Your task to perform on an android device: Show me popular videos on Youtube Image 0: 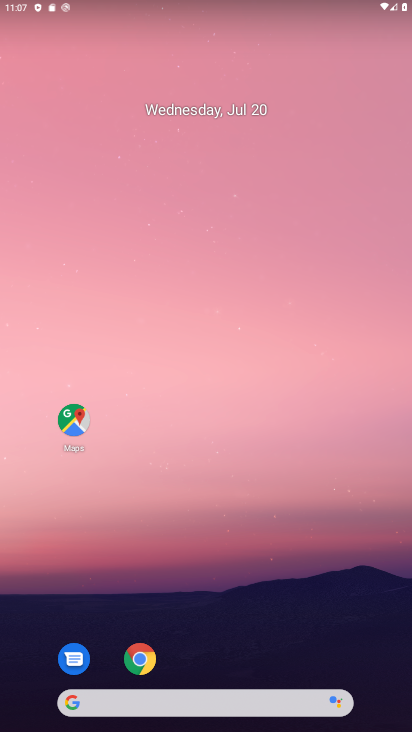
Step 0: drag from (256, 632) to (254, 3)
Your task to perform on an android device: Show me popular videos on Youtube Image 1: 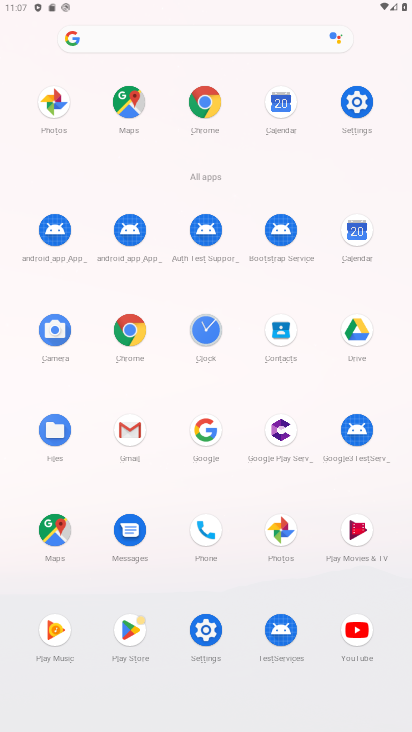
Step 1: click (343, 634)
Your task to perform on an android device: Show me popular videos on Youtube Image 2: 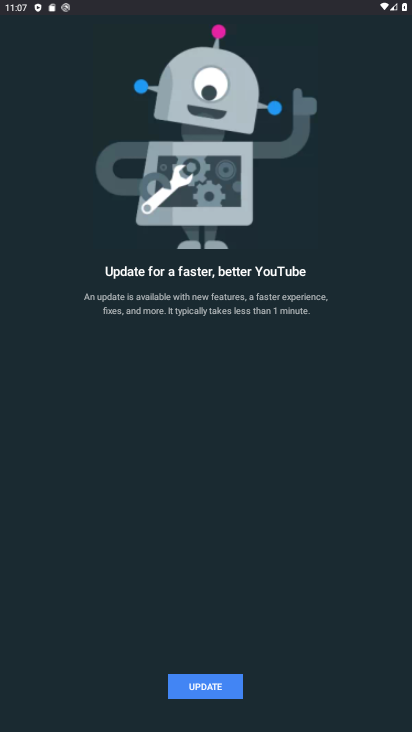
Step 2: click (219, 682)
Your task to perform on an android device: Show me popular videos on Youtube Image 3: 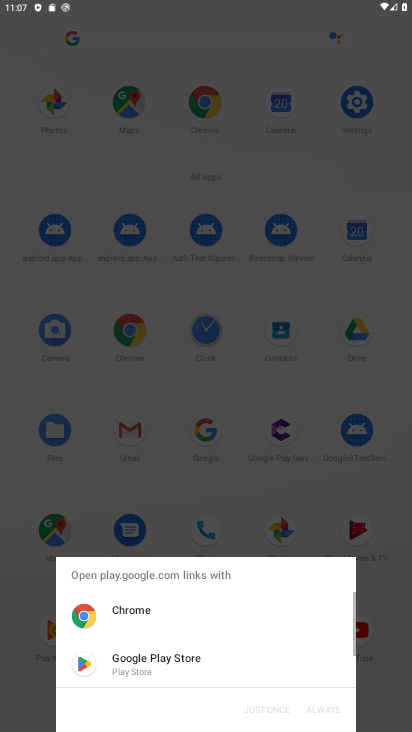
Step 3: click (135, 665)
Your task to perform on an android device: Show me popular videos on Youtube Image 4: 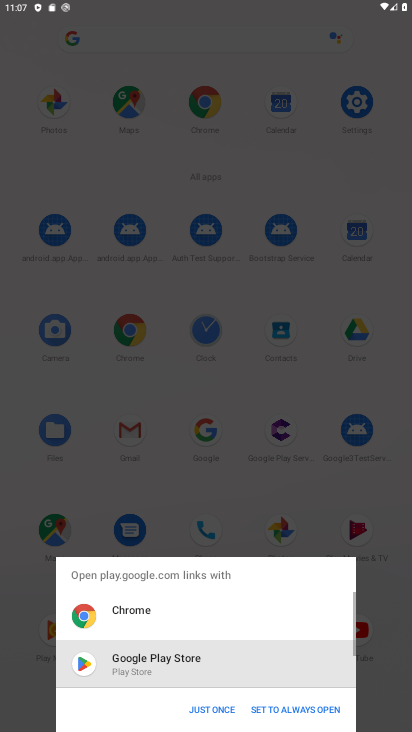
Step 4: click (202, 706)
Your task to perform on an android device: Show me popular videos on Youtube Image 5: 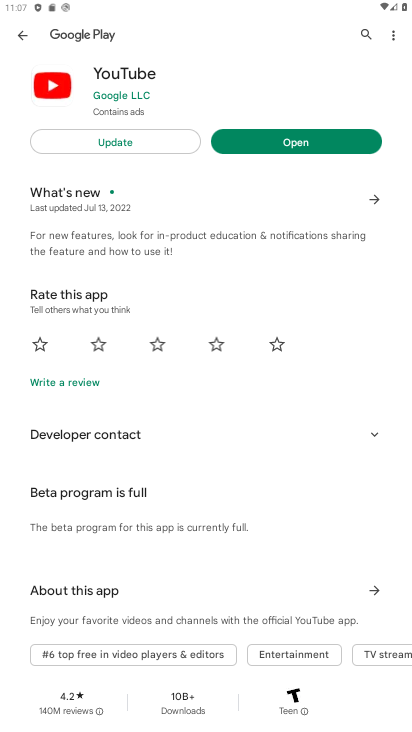
Step 5: click (149, 127)
Your task to perform on an android device: Show me popular videos on Youtube Image 6: 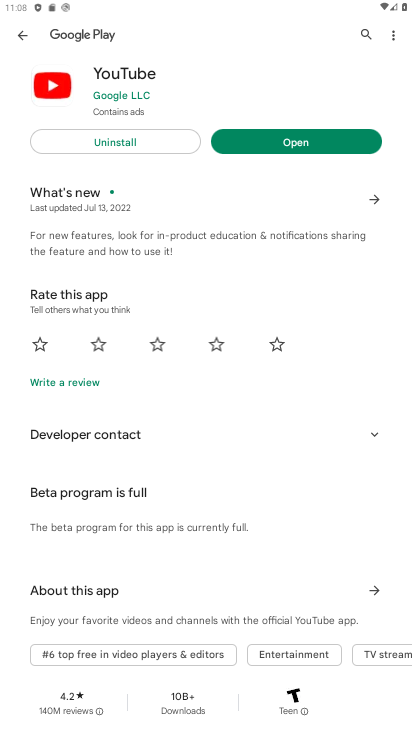
Step 6: click (277, 133)
Your task to perform on an android device: Show me popular videos on Youtube Image 7: 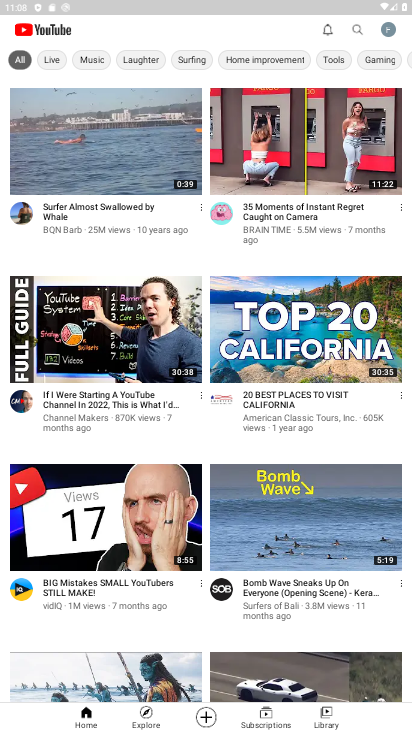
Step 7: click (145, 715)
Your task to perform on an android device: Show me popular videos on Youtube Image 8: 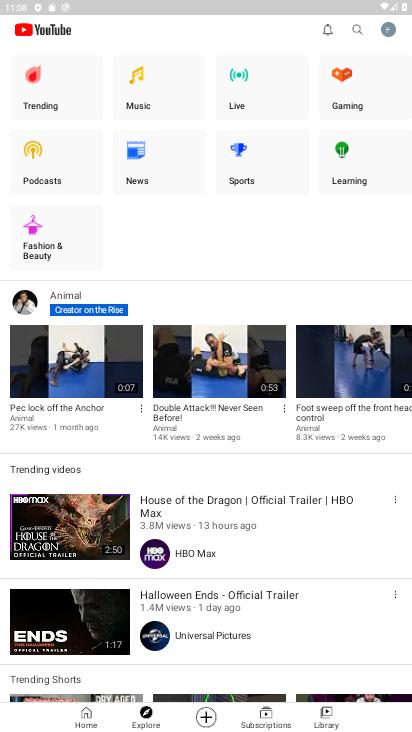
Step 8: click (66, 83)
Your task to perform on an android device: Show me popular videos on Youtube Image 9: 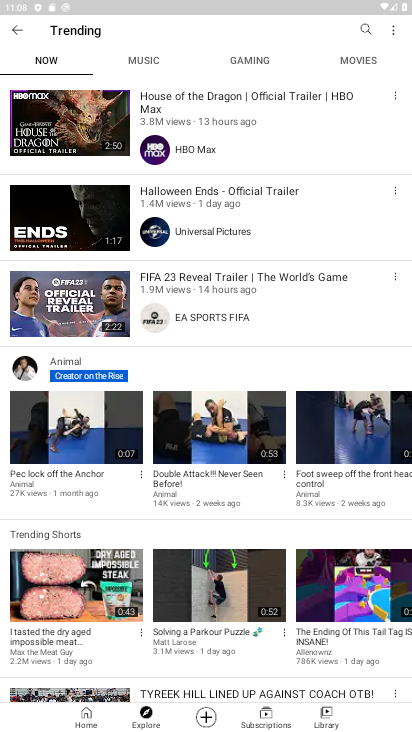
Step 9: task complete